Your task to perform on an android device: Find coffee shops on Maps Image 0: 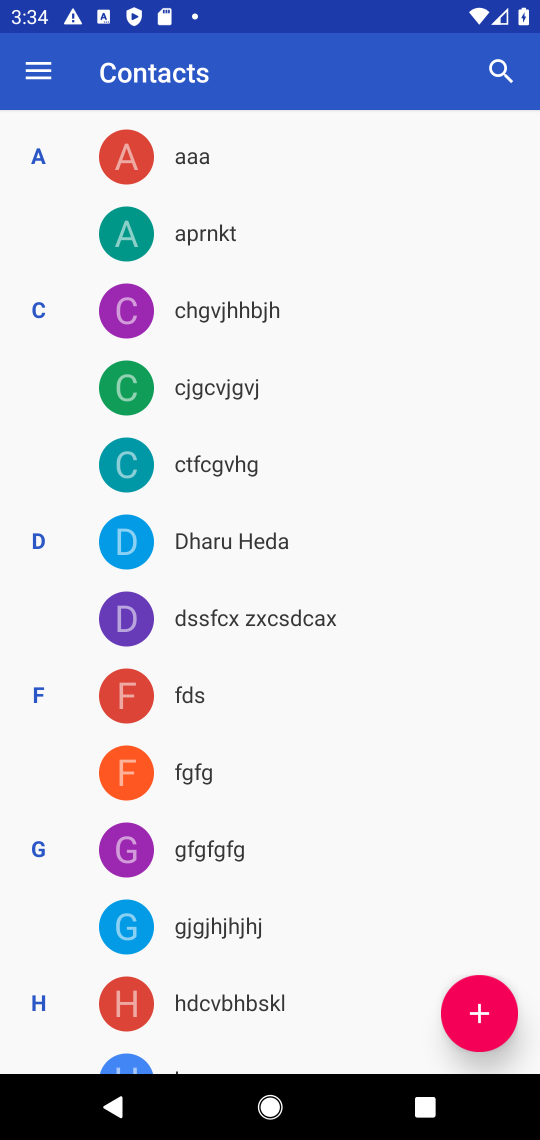
Step 0: click (257, 1115)
Your task to perform on an android device: Find coffee shops on Maps Image 1: 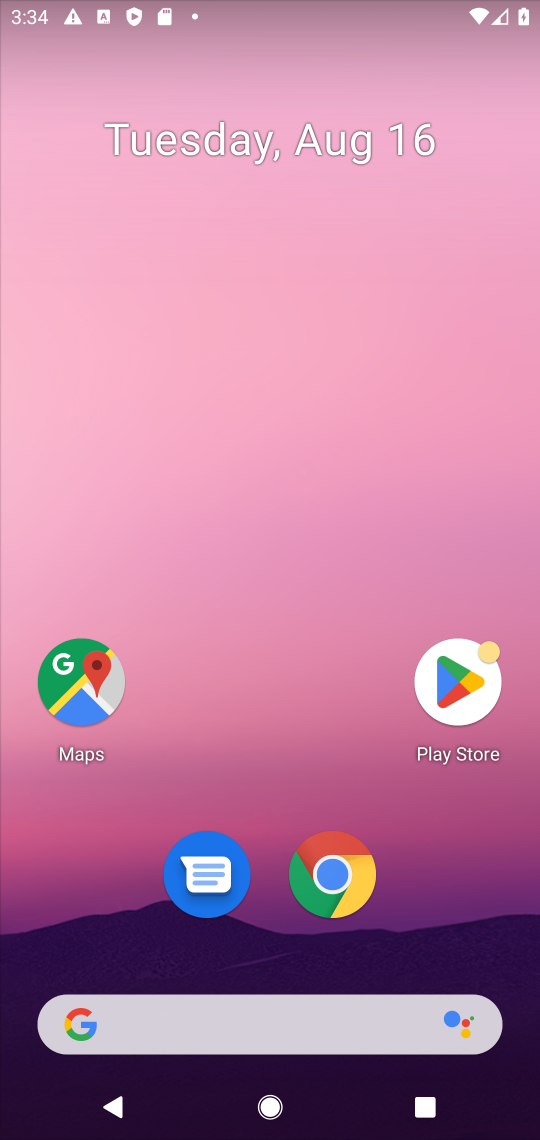
Step 1: click (80, 677)
Your task to perform on an android device: Find coffee shops on Maps Image 2: 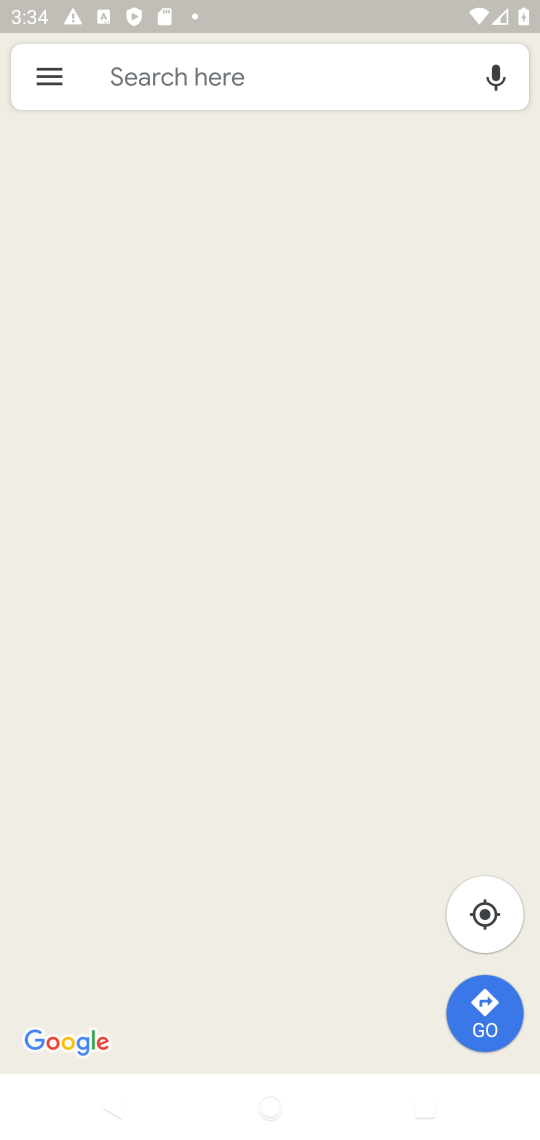
Step 2: click (246, 93)
Your task to perform on an android device: Find coffee shops on Maps Image 3: 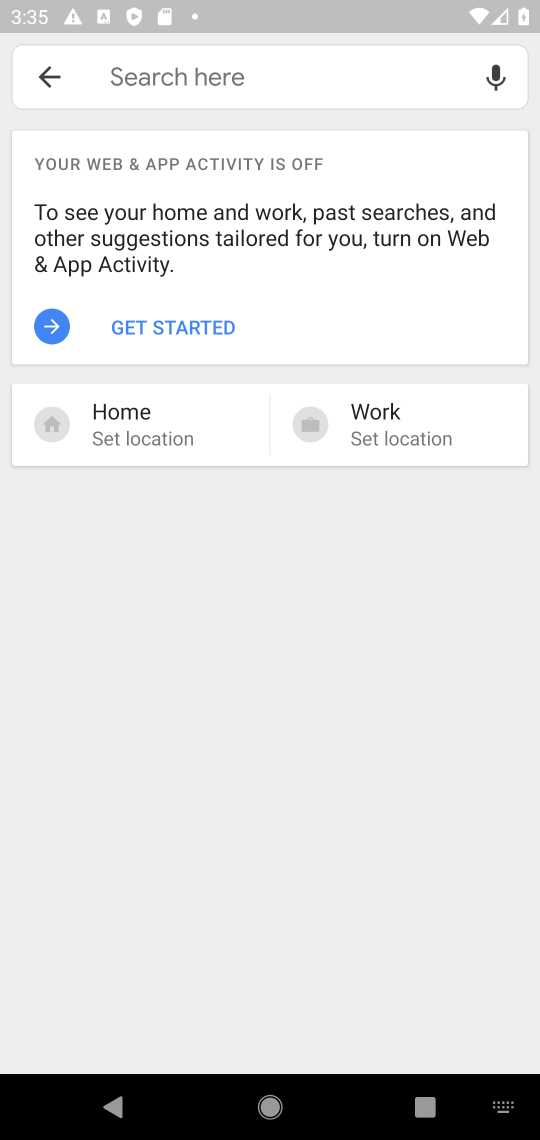
Step 3: click (145, 74)
Your task to perform on an android device: Find coffee shops on Maps Image 4: 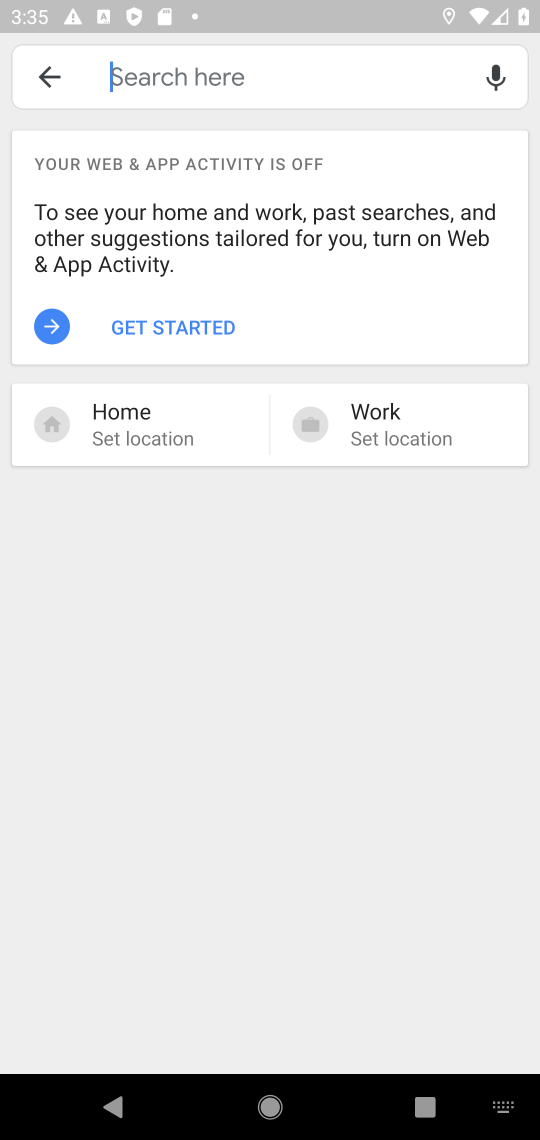
Step 4: click (145, 74)
Your task to perform on an android device: Find coffee shops on Maps Image 5: 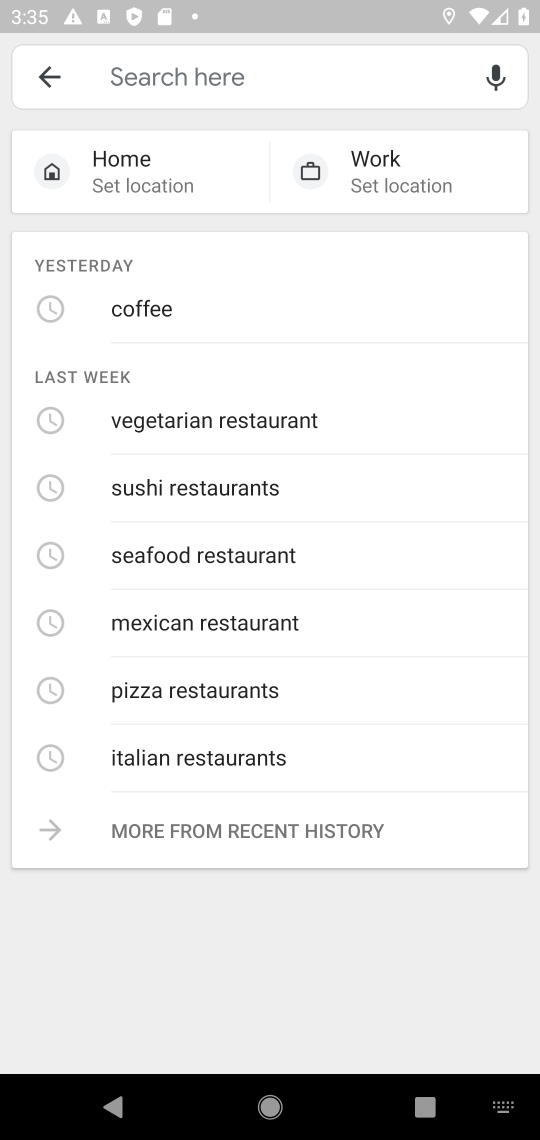
Step 5: type "coffe"
Your task to perform on an android device: Find coffee shops on Maps Image 6: 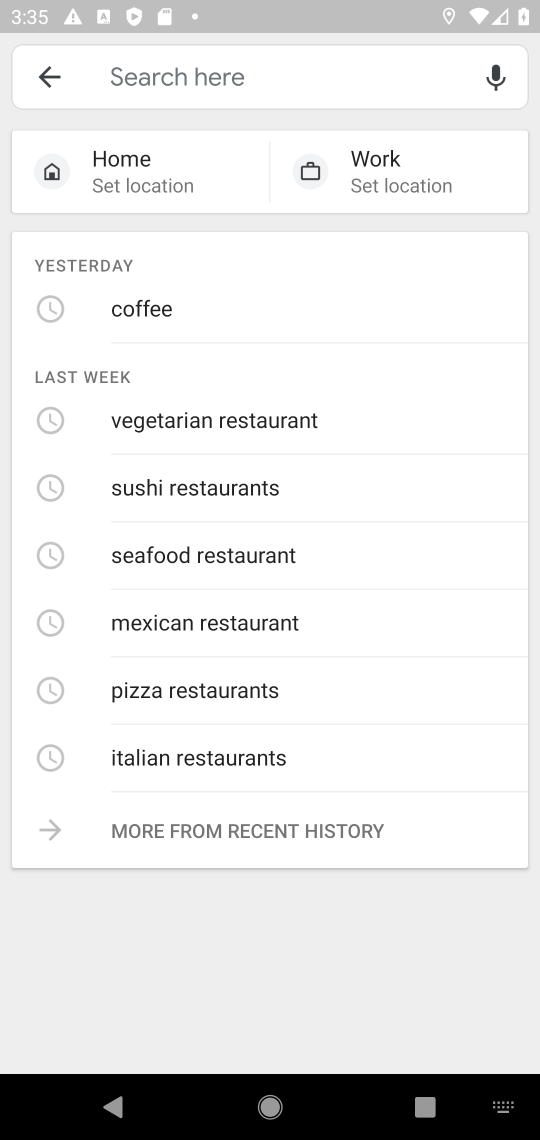
Step 6: click (149, 310)
Your task to perform on an android device: Find coffee shops on Maps Image 7: 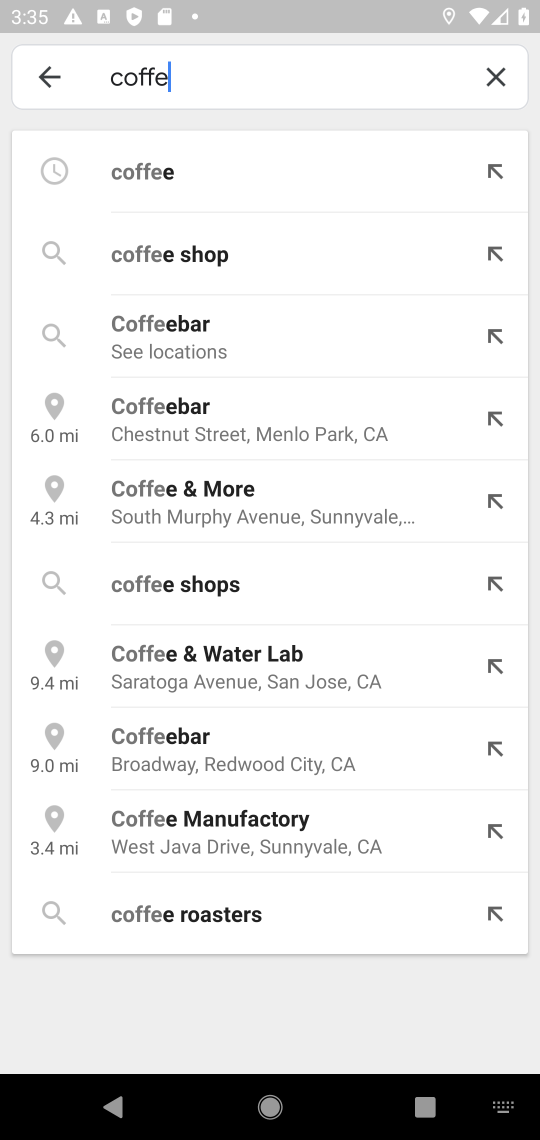
Step 7: click (254, 247)
Your task to perform on an android device: Find coffee shops on Maps Image 8: 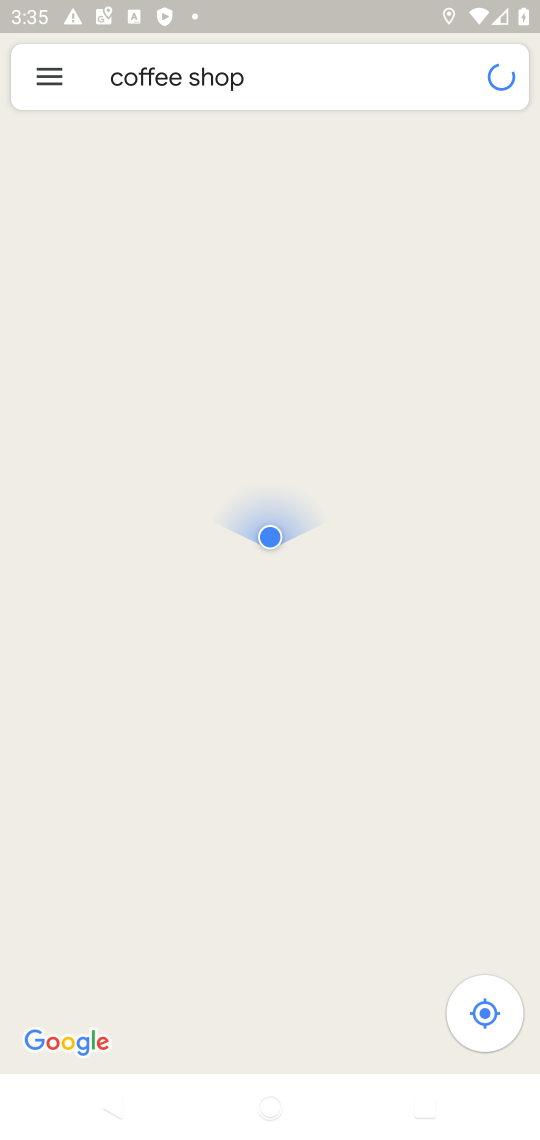
Step 8: task complete